Your task to perform on an android device: check battery use Image 0: 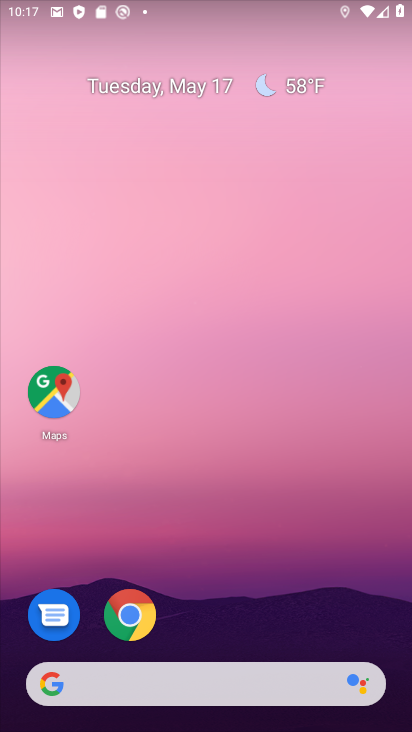
Step 0: drag from (207, 643) to (204, 217)
Your task to perform on an android device: check battery use Image 1: 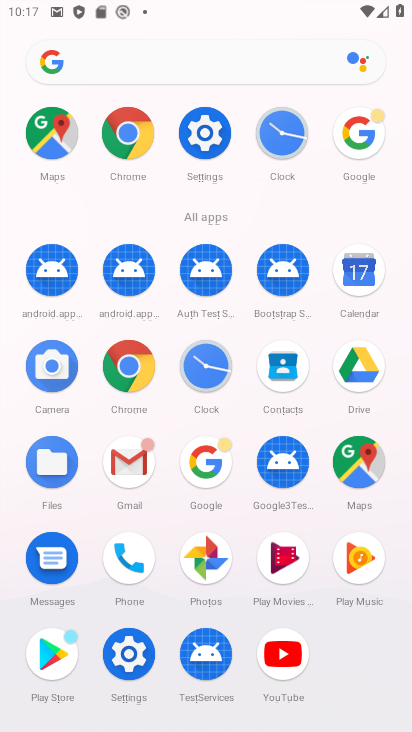
Step 1: click (206, 137)
Your task to perform on an android device: check battery use Image 2: 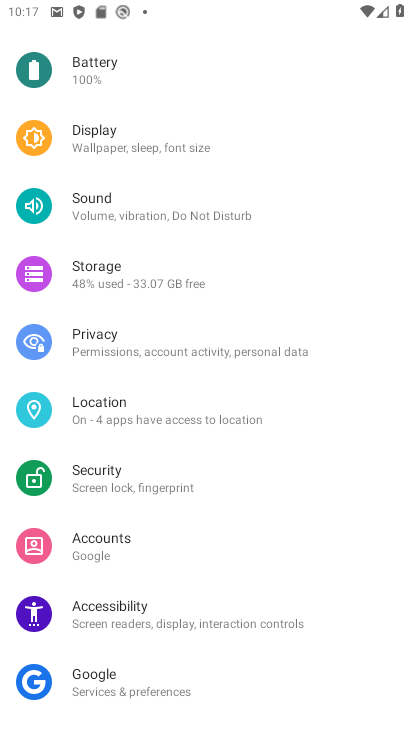
Step 2: drag from (141, 253) to (172, 521)
Your task to perform on an android device: check battery use Image 3: 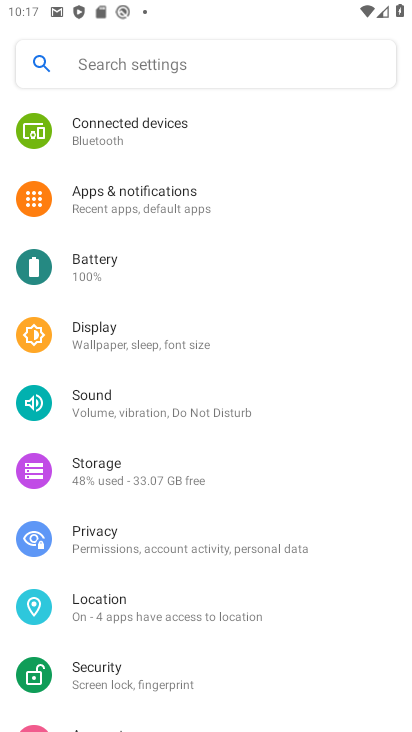
Step 3: click (134, 250)
Your task to perform on an android device: check battery use Image 4: 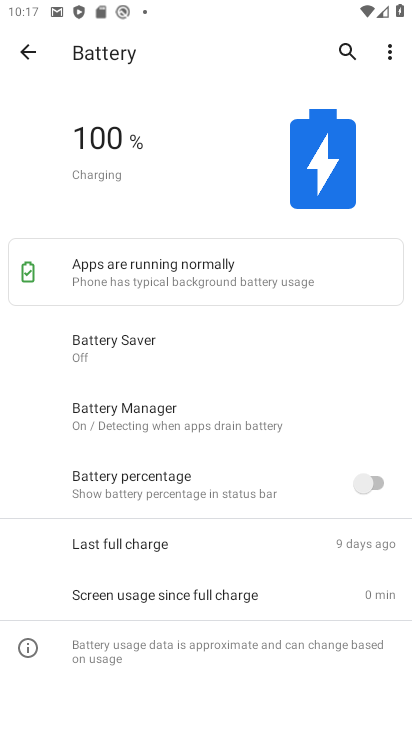
Step 4: click (387, 54)
Your task to perform on an android device: check battery use Image 5: 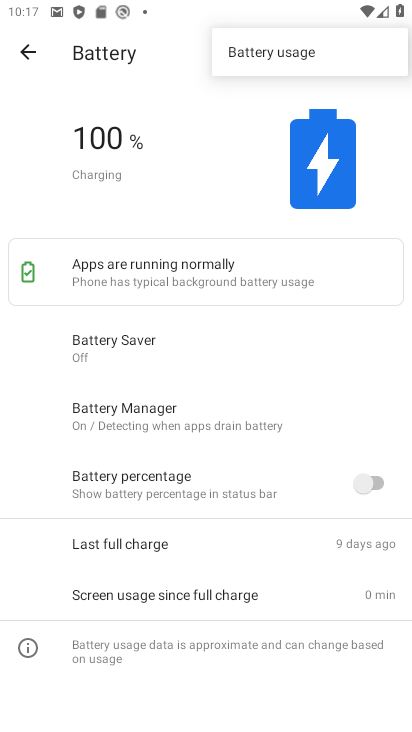
Step 5: click (325, 52)
Your task to perform on an android device: check battery use Image 6: 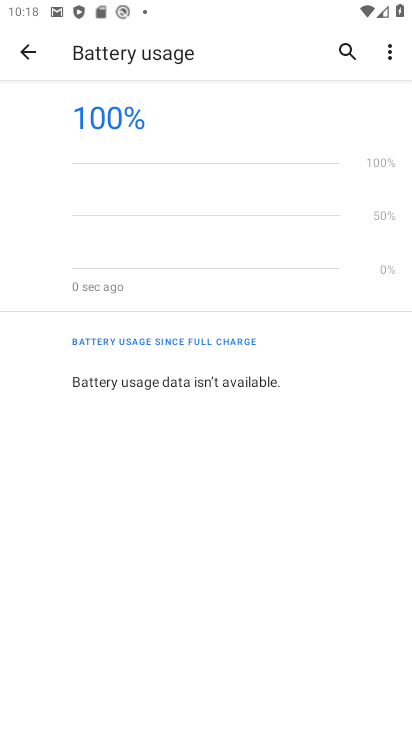
Step 6: task complete